Your task to perform on an android device: turn off notifications settings in the gmail app Image 0: 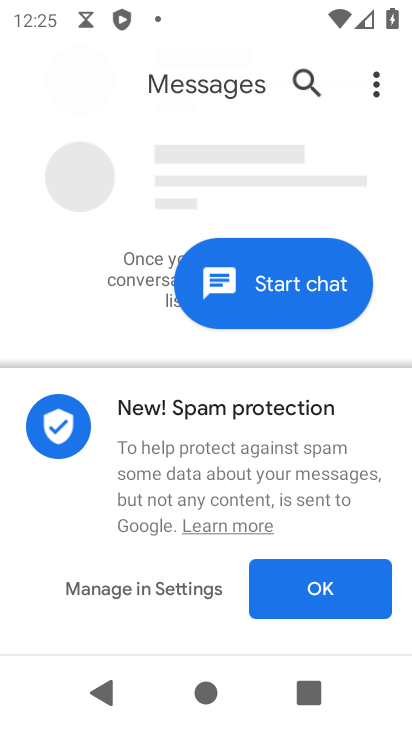
Step 0: press home button
Your task to perform on an android device: turn off notifications settings in the gmail app Image 1: 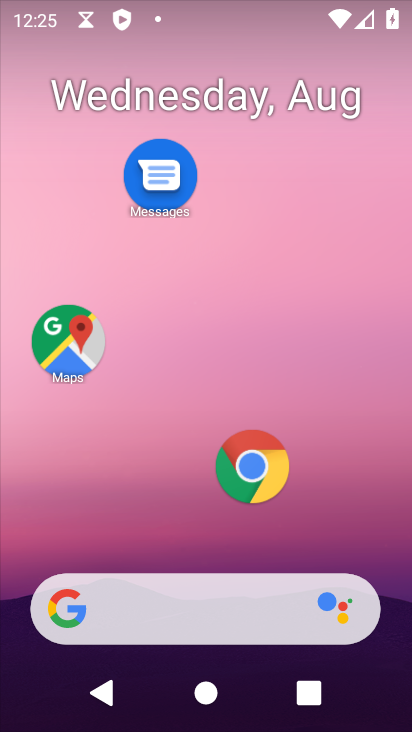
Step 1: click (189, 142)
Your task to perform on an android device: turn off notifications settings in the gmail app Image 2: 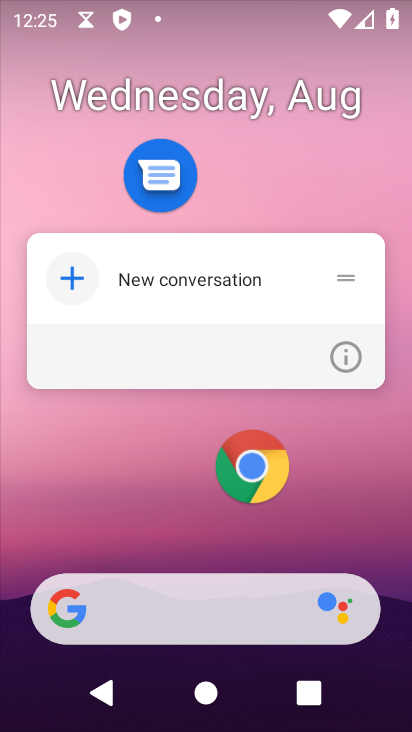
Step 2: click (192, 527)
Your task to perform on an android device: turn off notifications settings in the gmail app Image 3: 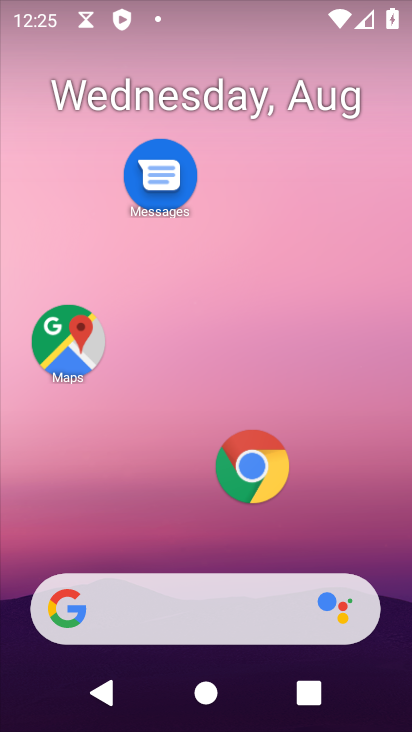
Step 3: drag from (165, 534) to (164, 124)
Your task to perform on an android device: turn off notifications settings in the gmail app Image 4: 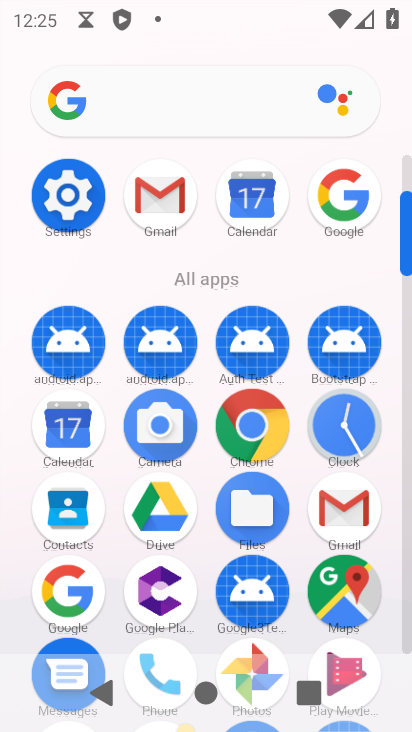
Step 4: click (154, 206)
Your task to perform on an android device: turn off notifications settings in the gmail app Image 5: 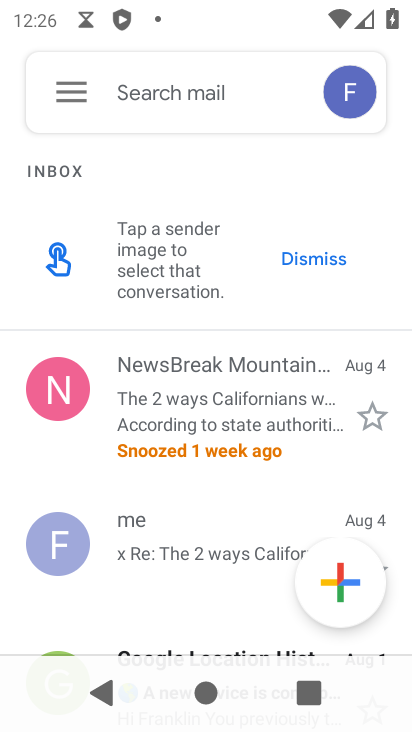
Step 5: click (66, 88)
Your task to perform on an android device: turn off notifications settings in the gmail app Image 6: 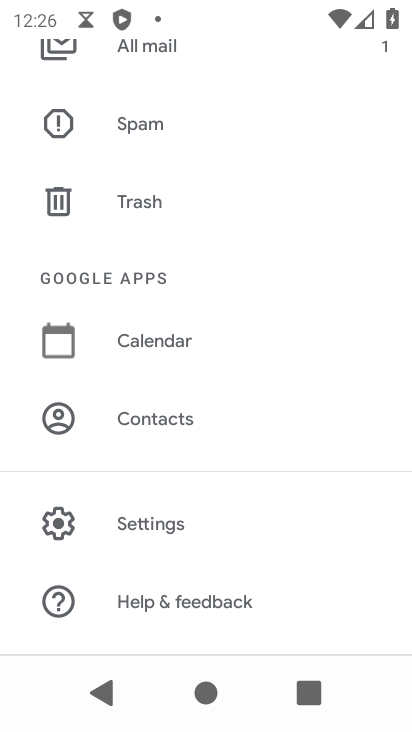
Step 6: click (141, 530)
Your task to perform on an android device: turn off notifications settings in the gmail app Image 7: 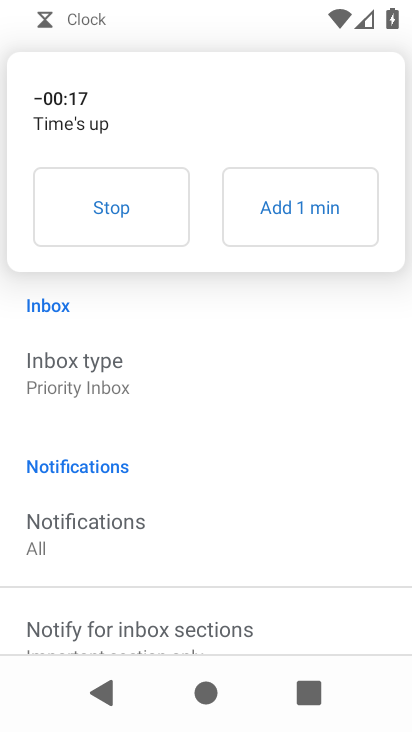
Step 7: click (99, 200)
Your task to perform on an android device: turn off notifications settings in the gmail app Image 8: 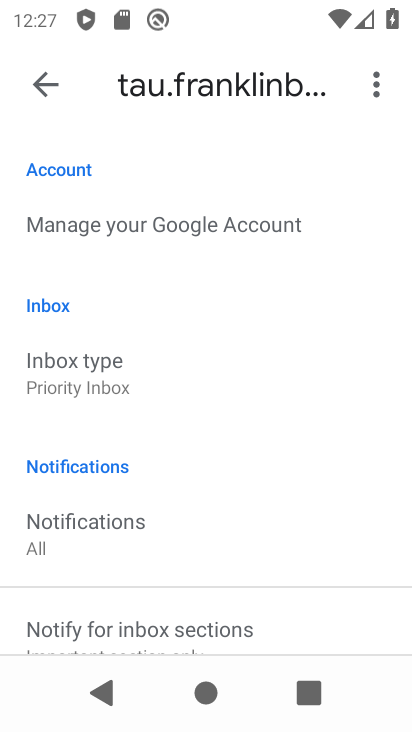
Step 8: click (85, 534)
Your task to perform on an android device: turn off notifications settings in the gmail app Image 9: 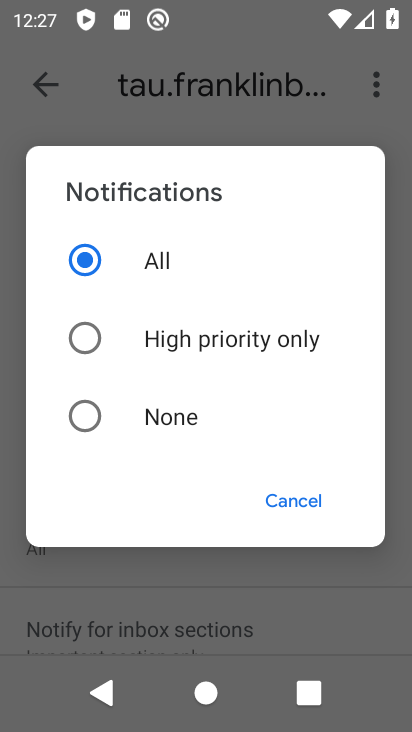
Step 9: click (72, 422)
Your task to perform on an android device: turn off notifications settings in the gmail app Image 10: 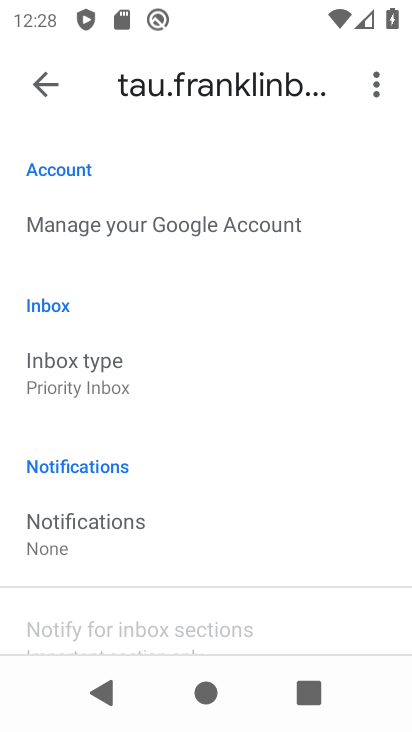
Step 10: press home button
Your task to perform on an android device: turn off notifications settings in the gmail app Image 11: 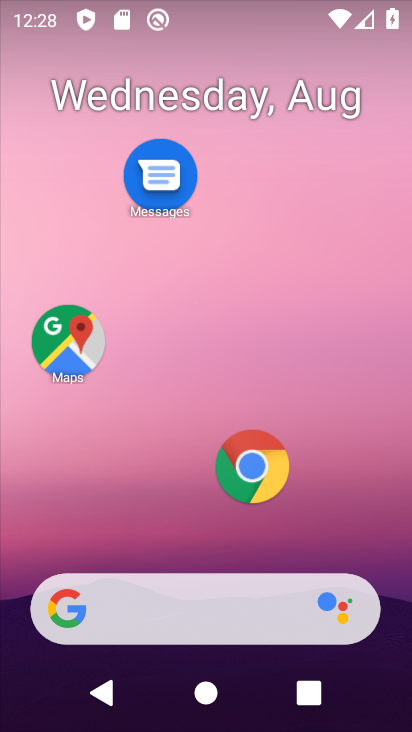
Step 11: drag from (205, 547) to (235, 13)
Your task to perform on an android device: turn off notifications settings in the gmail app Image 12: 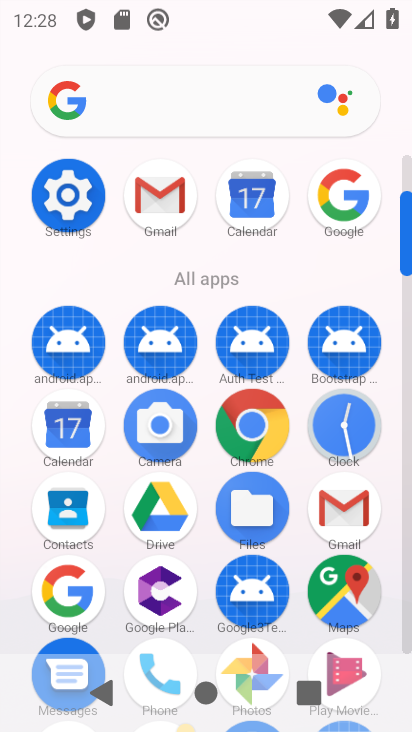
Step 12: click (154, 199)
Your task to perform on an android device: turn off notifications settings in the gmail app Image 13: 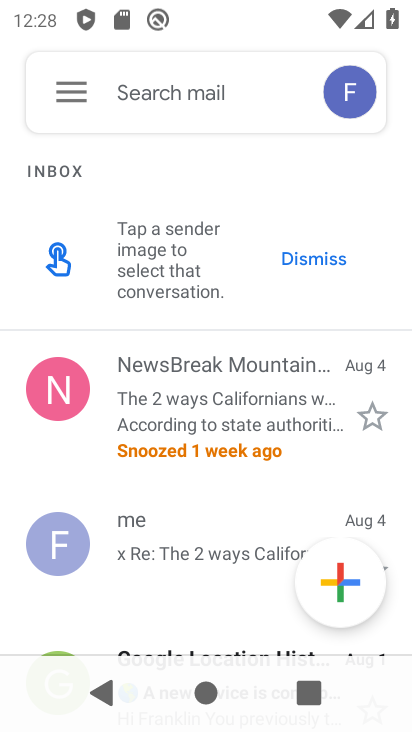
Step 13: click (66, 89)
Your task to perform on an android device: turn off notifications settings in the gmail app Image 14: 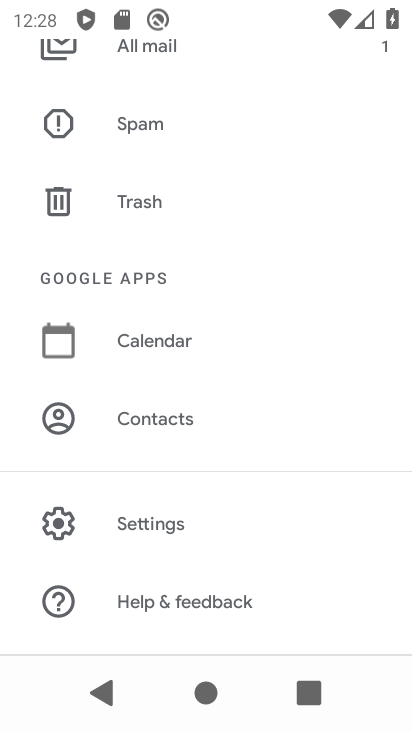
Step 14: click (143, 520)
Your task to perform on an android device: turn off notifications settings in the gmail app Image 15: 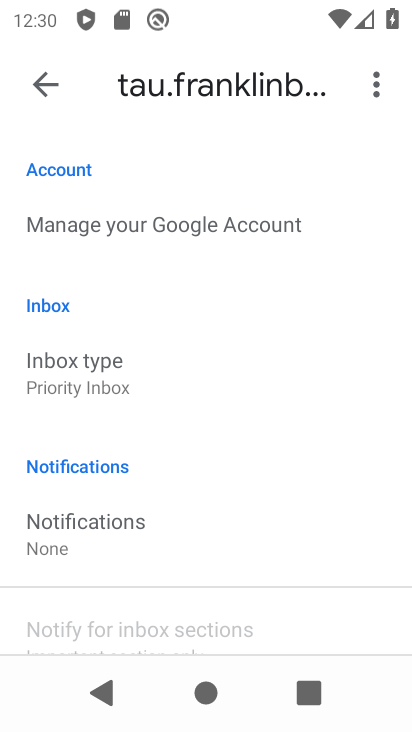
Step 15: drag from (94, 530) to (108, 263)
Your task to perform on an android device: turn off notifications settings in the gmail app Image 16: 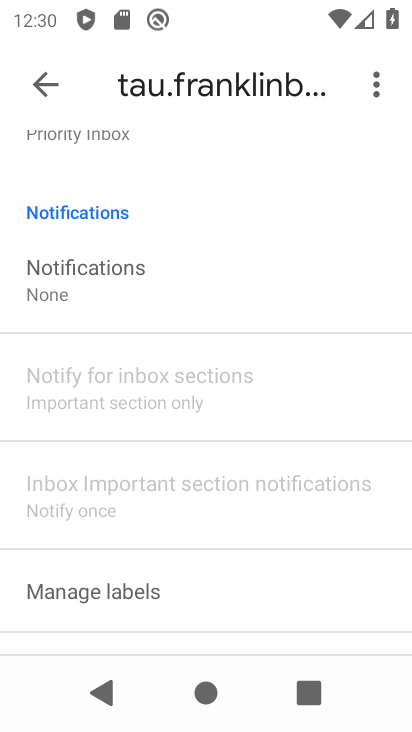
Step 16: drag from (135, 638) to (164, 297)
Your task to perform on an android device: turn off notifications settings in the gmail app Image 17: 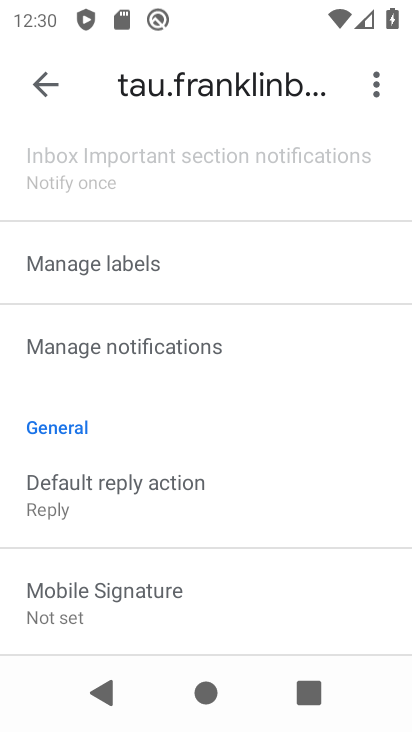
Step 17: drag from (191, 338) to (178, 635)
Your task to perform on an android device: turn off notifications settings in the gmail app Image 18: 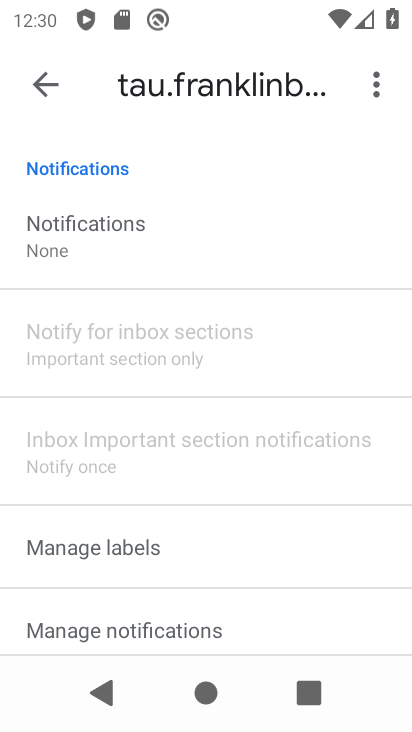
Step 18: click (77, 240)
Your task to perform on an android device: turn off notifications settings in the gmail app Image 19: 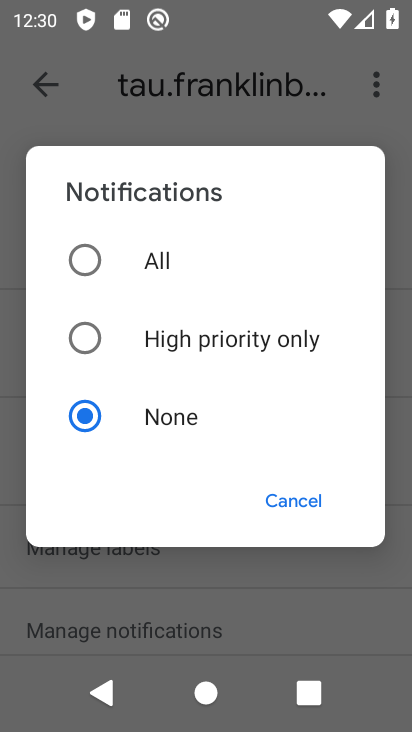
Step 19: task complete